Your task to perform on an android device: Go to battery settings Image 0: 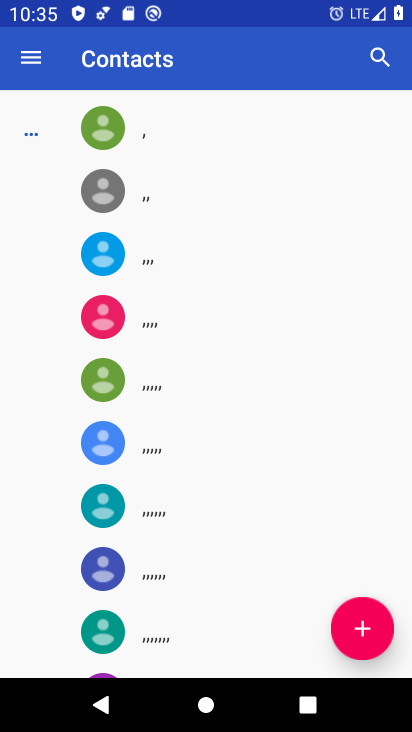
Step 0: press home button
Your task to perform on an android device: Go to battery settings Image 1: 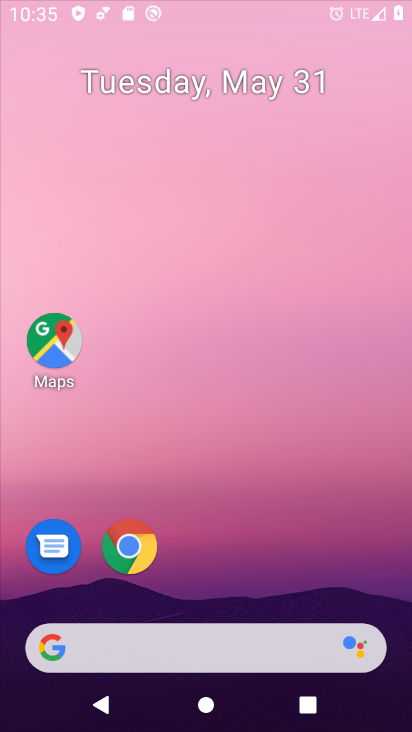
Step 1: drag from (216, 671) to (278, 32)
Your task to perform on an android device: Go to battery settings Image 2: 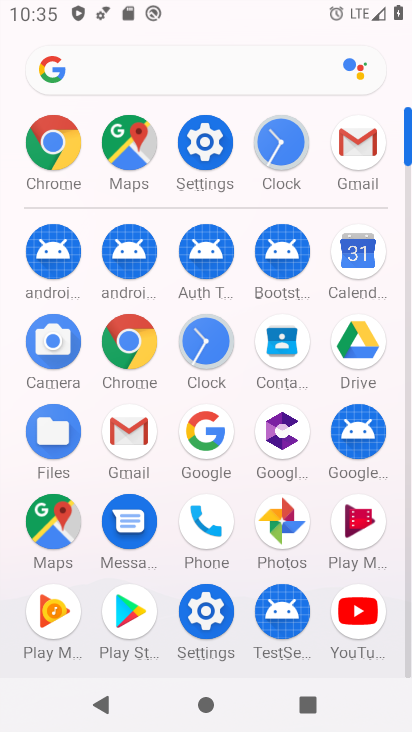
Step 2: click (175, 140)
Your task to perform on an android device: Go to battery settings Image 3: 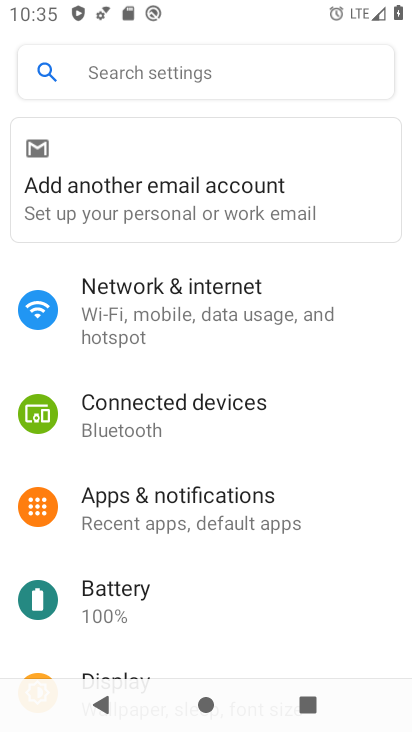
Step 3: click (217, 620)
Your task to perform on an android device: Go to battery settings Image 4: 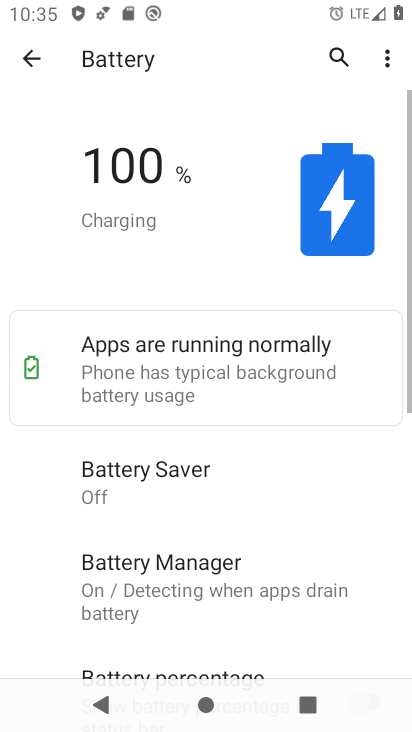
Step 4: task complete